Your task to perform on an android device: clear history in the chrome app Image 0: 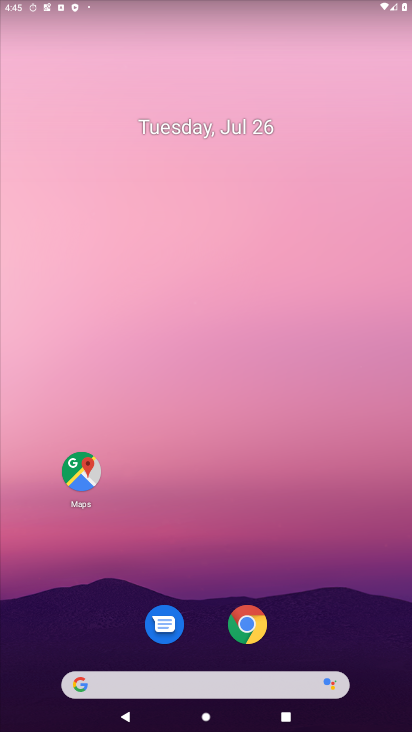
Step 0: drag from (248, 686) to (298, 62)
Your task to perform on an android device: clear history in the chrome app Image 1: 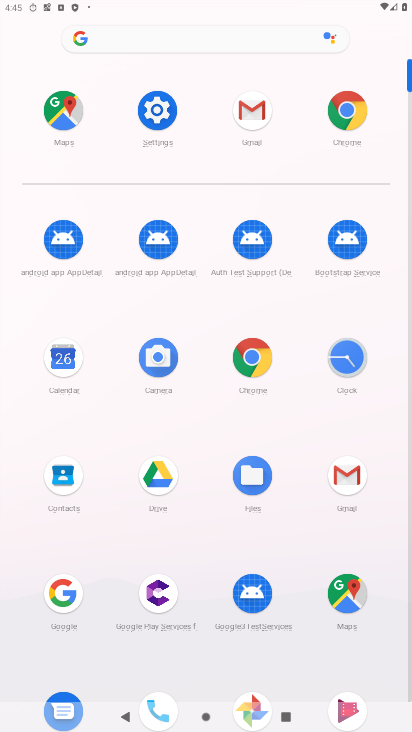
Step 1: click (240, 367)
Your task to perform on an android device: clear history in the chrome app Image 2: 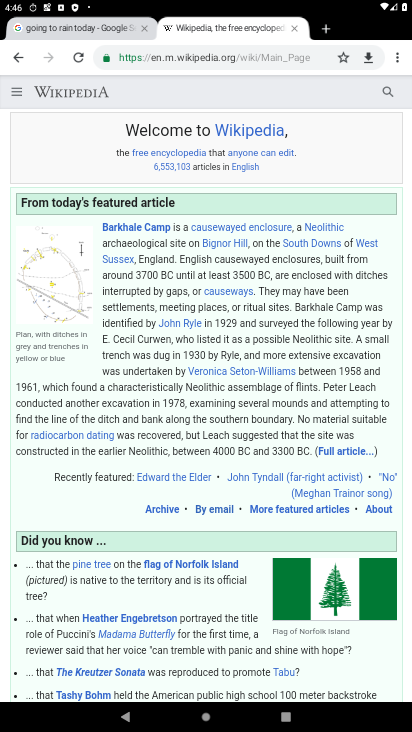
Step 2: click (393, 55)
Your task to perform on an android device: clear history in the chrome app Image 3: 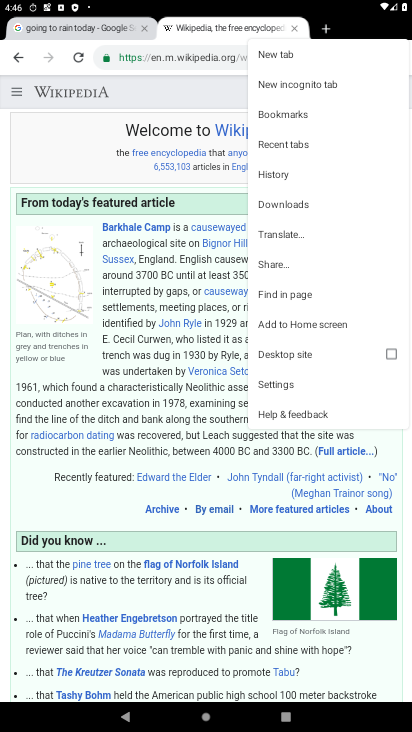
Step 3: click (306, 177)
Your task to perform on an android device: clear history in the chrome app Image 4: 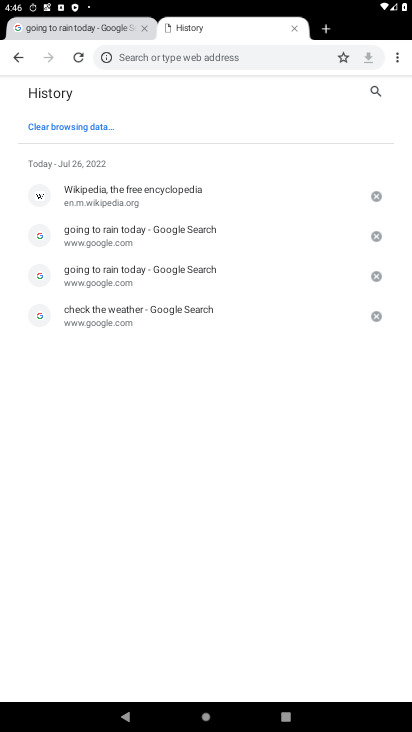
Step 4: click (75, 128)
Your task to perform on an android device: clear history in the chrome app Image 5: 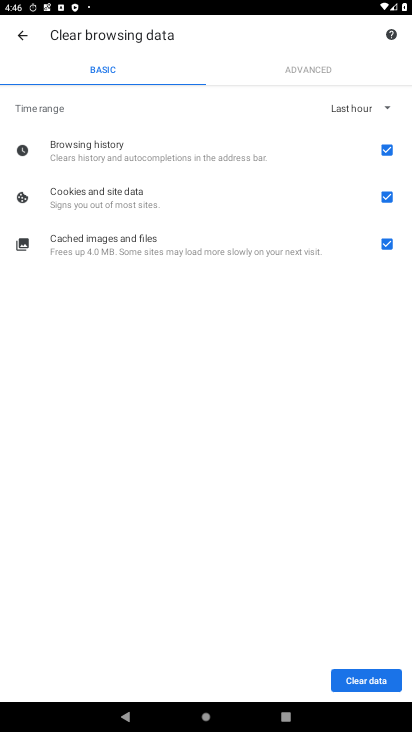
Step 5: click (371, 678)
Your task to perform on an android device: clear history in the chrome app Image 6: 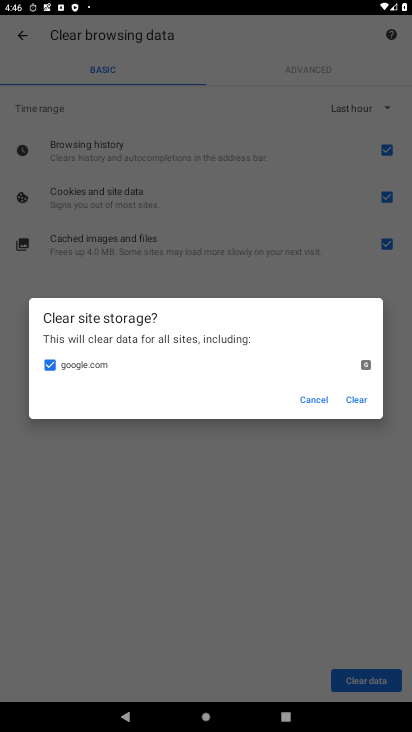
Step 6: click (351, 389)
Your task to perform on an android device: clear history in the chrome app Image 7: 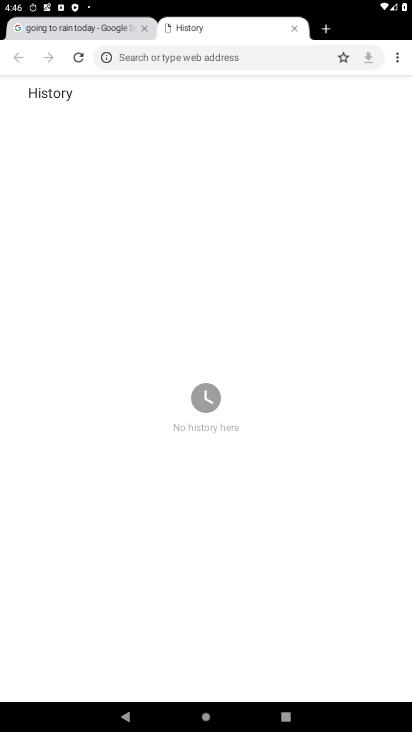
Step 7: task complete